Your task to perform on an android device: install app "Nova Launcher" Image 0: 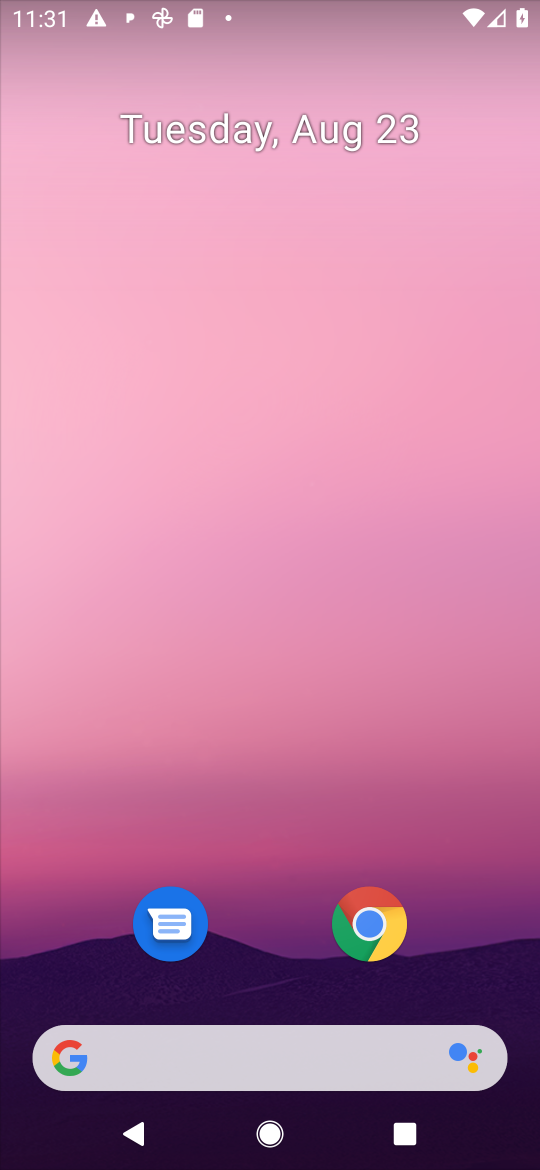
Step 0: press home button
Your task to perform on an android device: install app "Nova Launcher" Image 1: 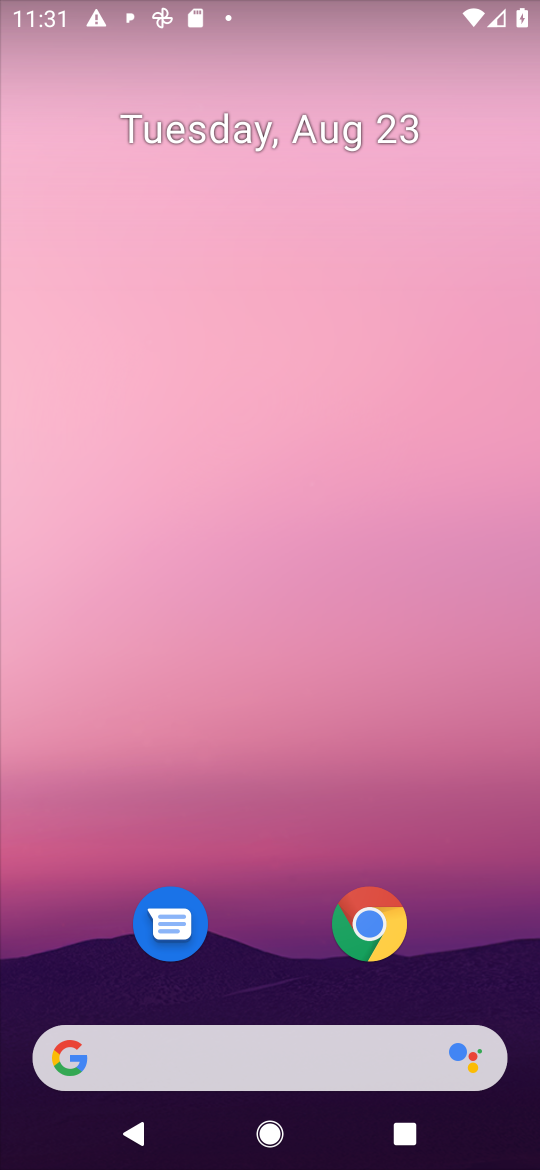
Step 1: drag from (477, 919) to (470, 169)
Your task to perform on an android device: install app "Nova Launcher" Image 2: 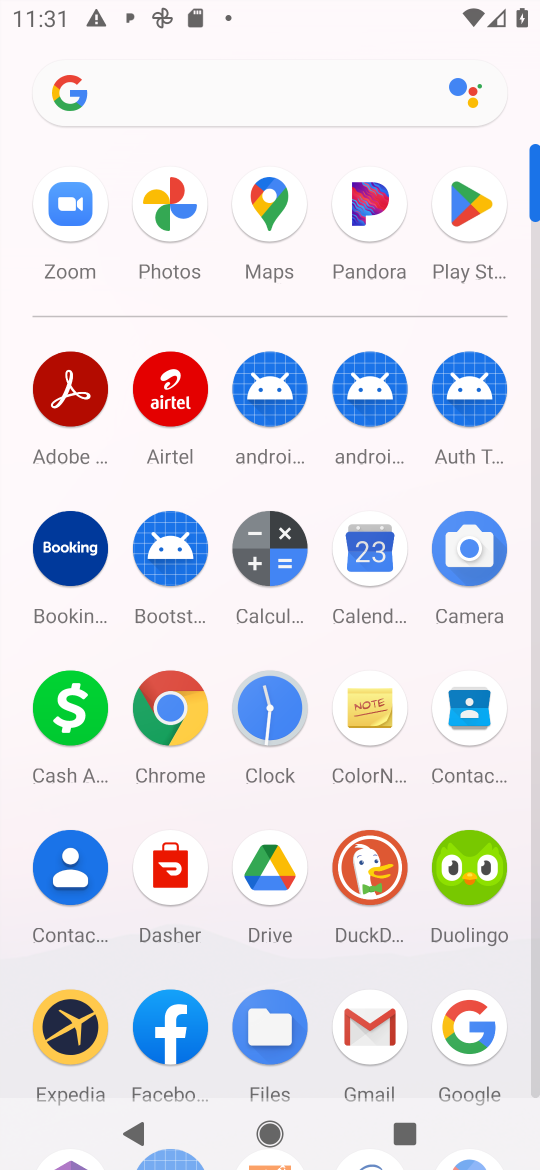
Step 2: click (472, 204)
Your task to perform on an android device: install app "Nova Launcher" Image 3: 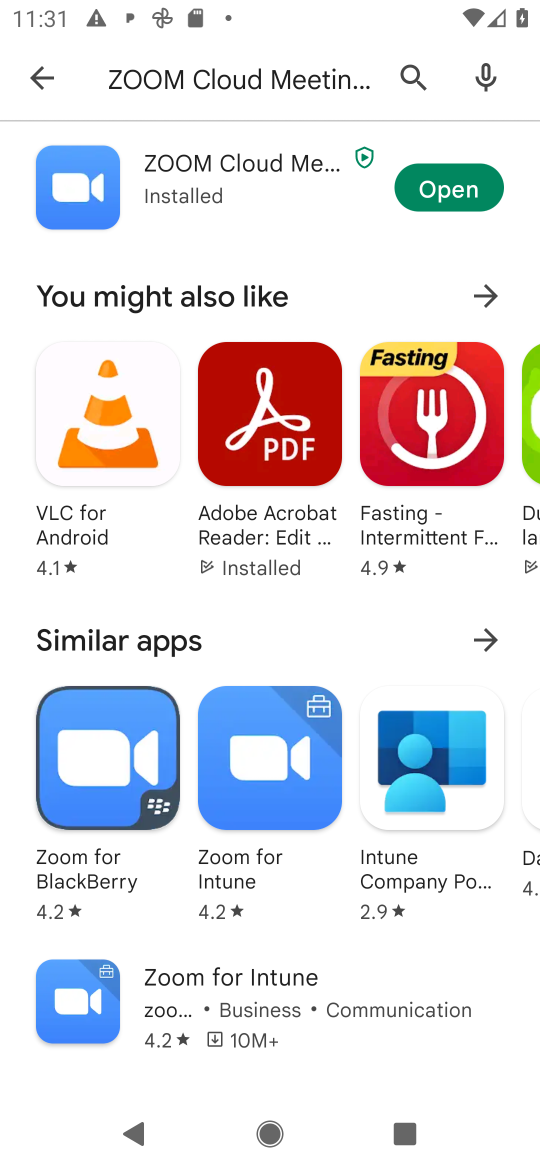
Step 3: press back button
Your task to perform on an android device: install app "Nova Launcher" Image 4: 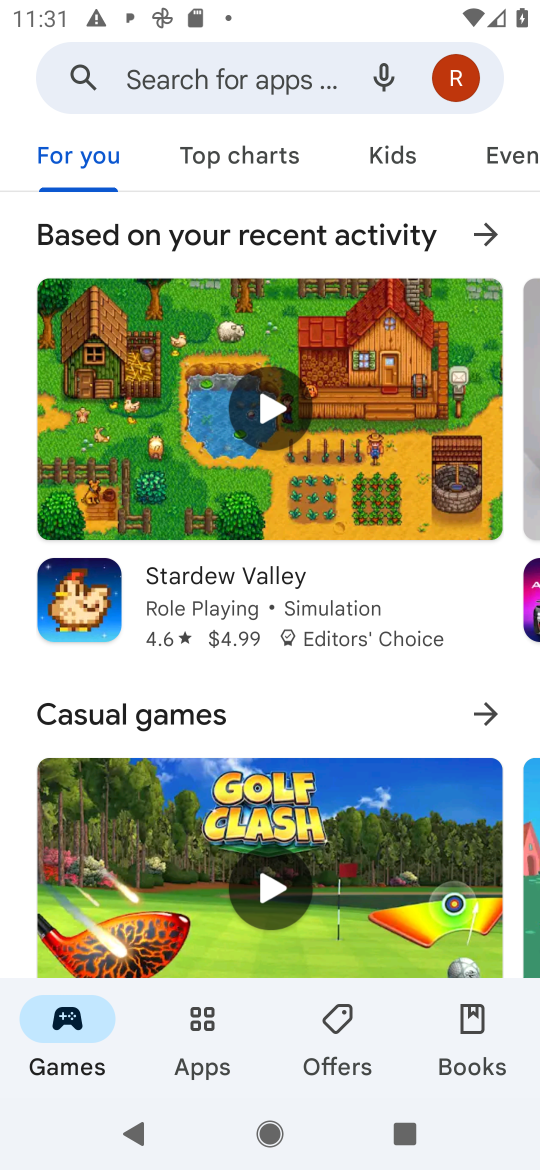
Step 4: click (207, 76)
Your task to perform on an android device: install app "Nova Launcher" Image 5: 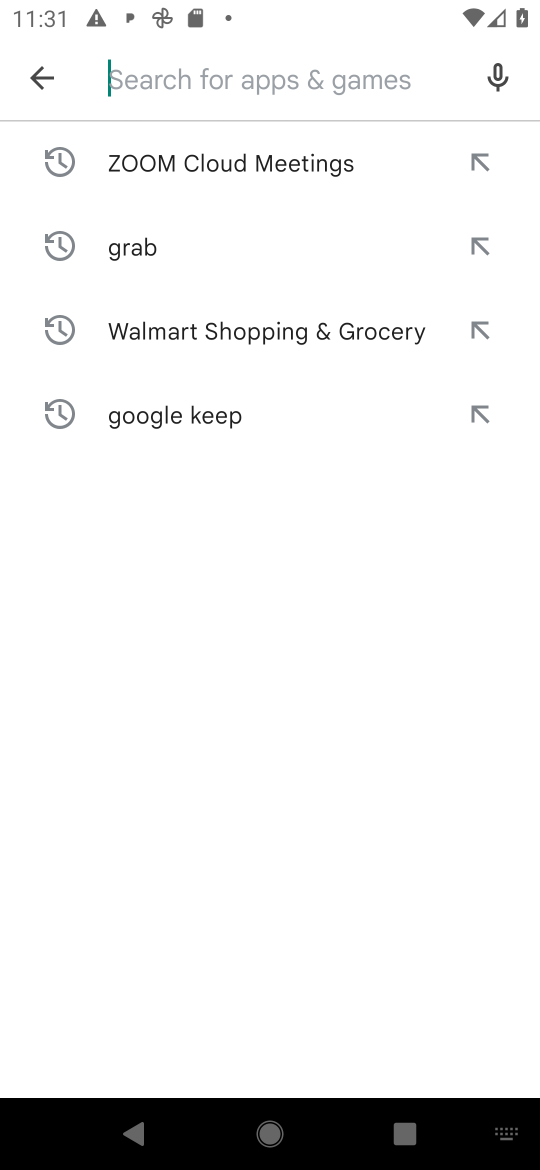
Step 5: press enter
Your task to perform on an android device: install app "Nova Launcher" Image 6: 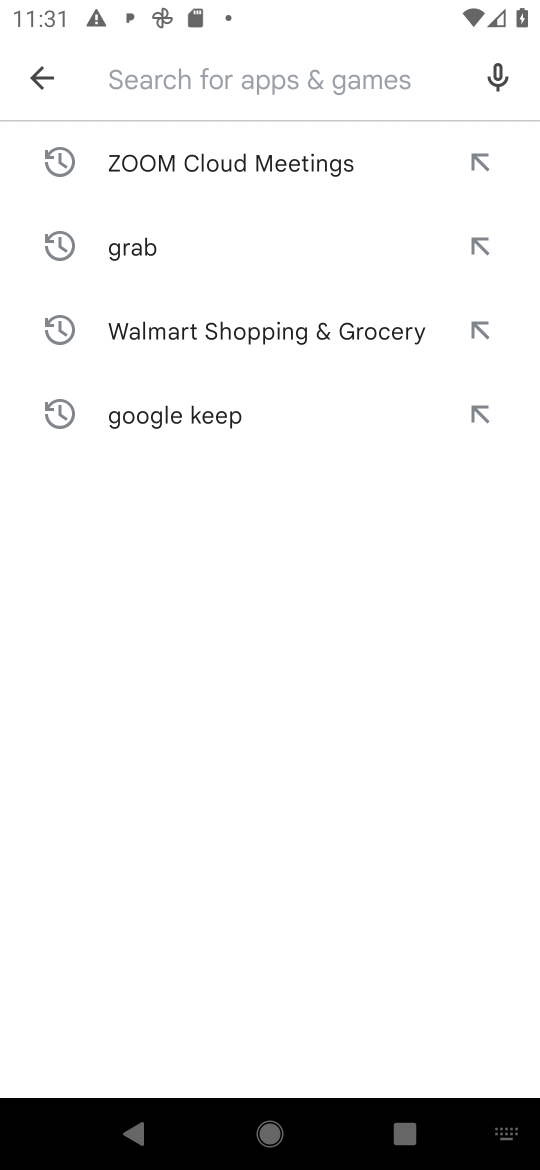
Step 6: type "Nova Launcher"
Your task to perform on an android device: install app "Nova Launcher" Image 7: 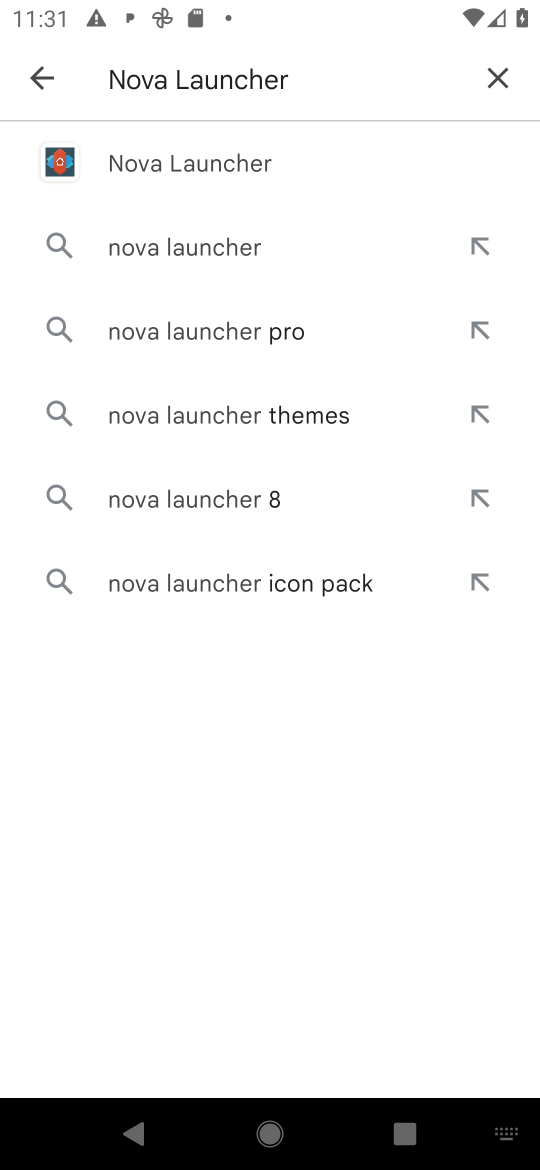
Step 7: click (253, 158)
Your task to perform on an android device: install app "Nova Launcher" Image 8: 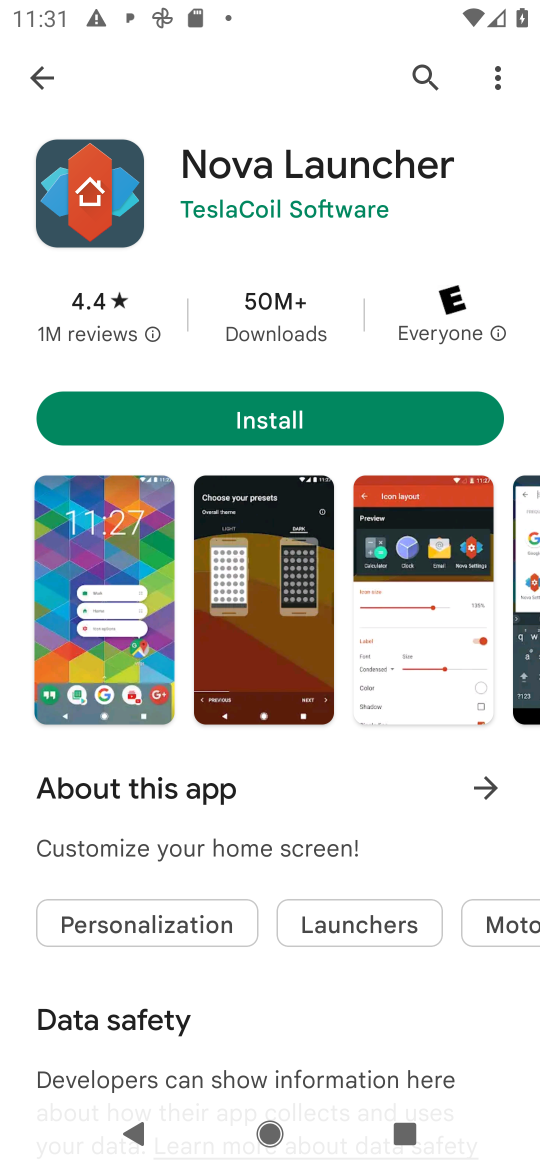
Step 8: click (396, 416)
Your task to perform on an android device: install app "Nova Launcher" Image 9: 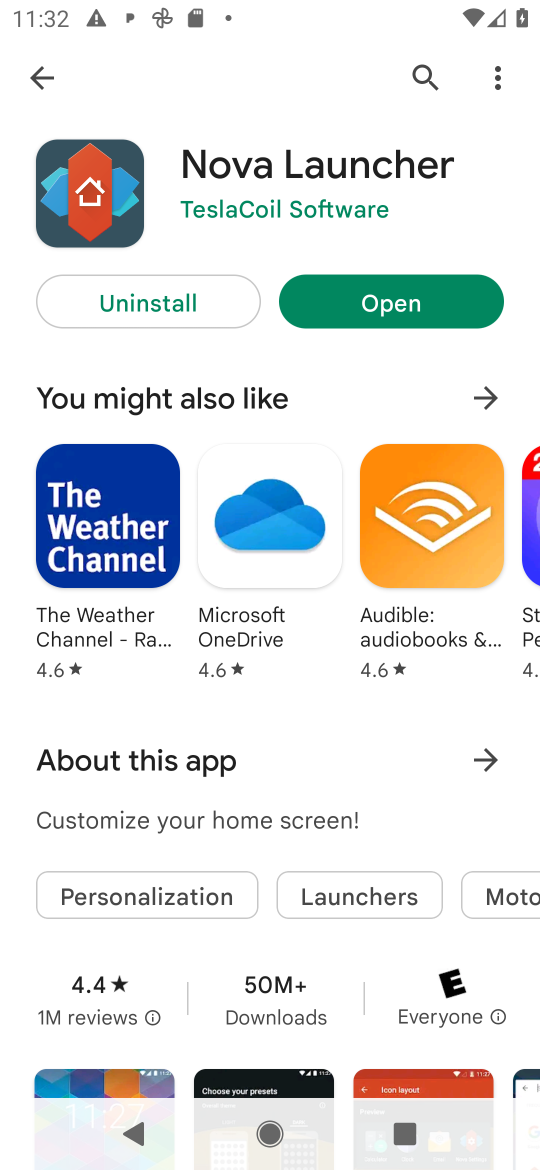
Step 9: task complete